Your task to perform on an android device: Open Amazon Image 0: 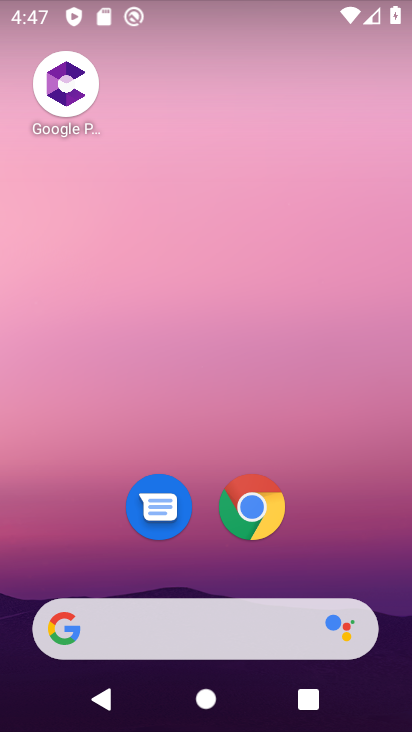
Step 0: click (253, 508)
Your task to perform on an android device: Open Amazon Image 1: 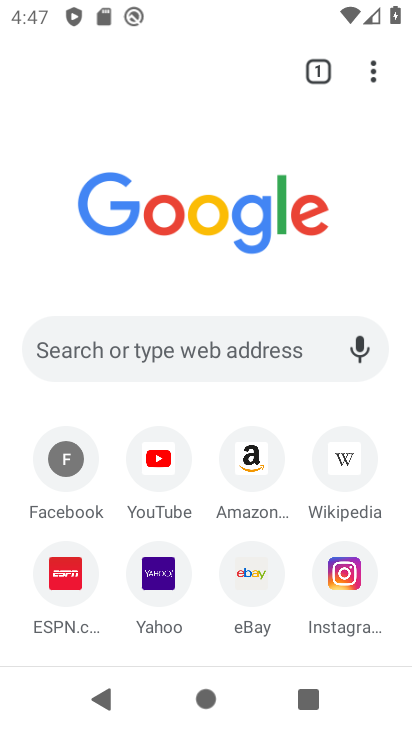
Step 1: click (255, 460)
Your task to perform on an android device: Open Amazon Image 2: 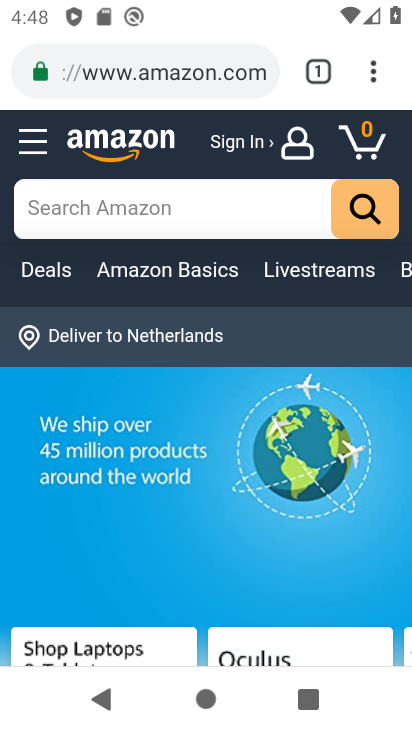
Step 2: task complete